Your task to perform on an android device: change your default location settings in chrome Image 0: 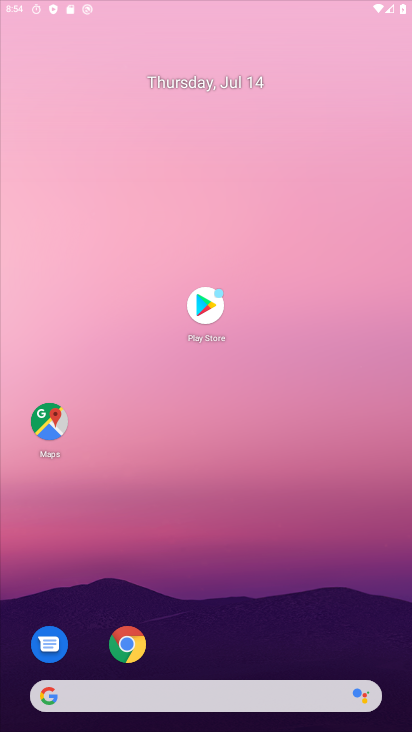
Step 0: drag from (188, 655) to (224, 156)
Your task to perform on an android device: change your default location settings in chrome Image 1: 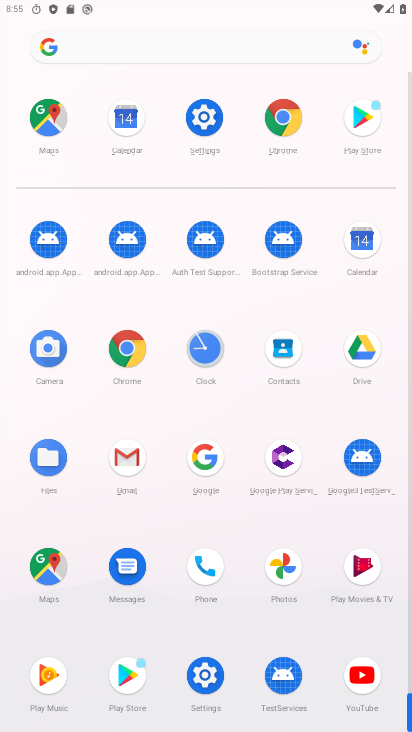
Step 1: click (125, 350)
Your task to perform on an android device: change your default location settings in chrome Image 2: 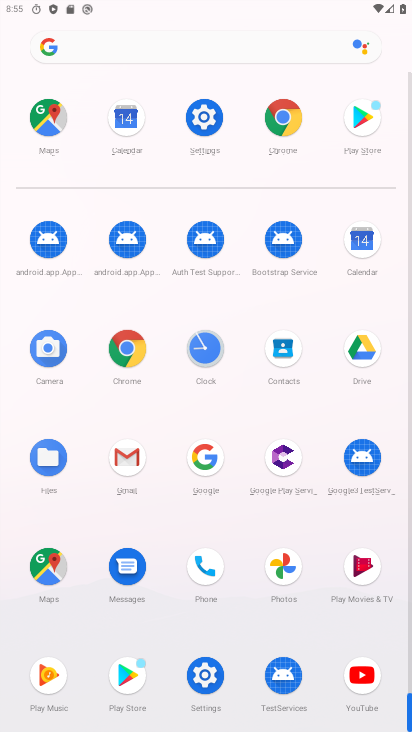
Step 2: click (125, 350)
Your task to perform on an android device: change your default location settings in chrome Image 3: 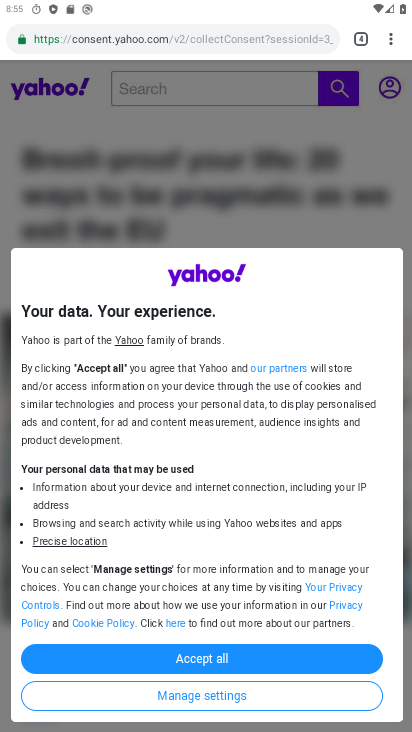
Step 3: drag from (221, 563) to (246, 351)
Your task to perform on an android device: change your default location settings in chrome Image 4: 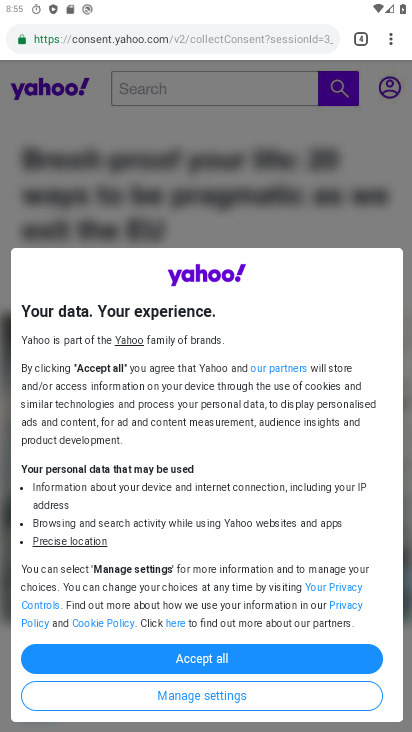
Step 4: click (395, 32)
Your task to perform on an android device: change your default location settings in chrome Image 5: 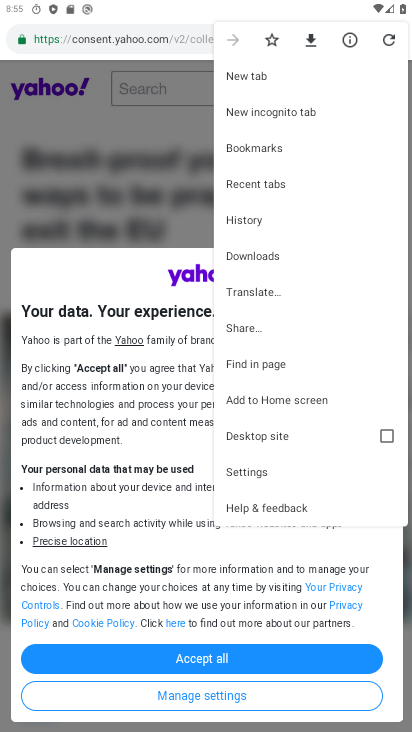
Step 5: click (249, 465)
Your task to perform on an android device: change your default location settings in chrome Image 6: 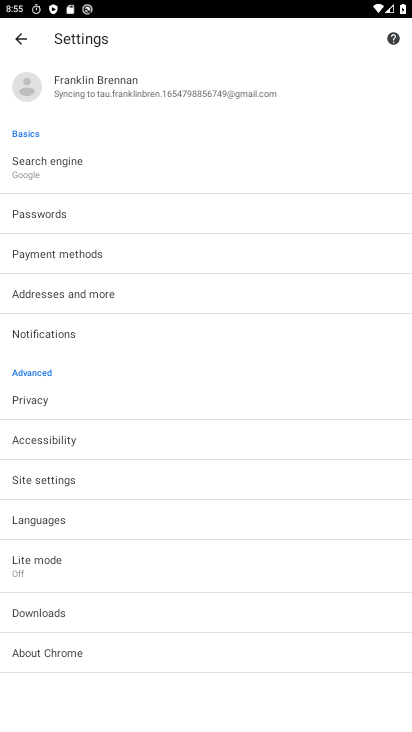
Step 6: drag from (107, 621) to (174, 284)
Your task to perform on an android device: change your default location settings in chrome Image 7: 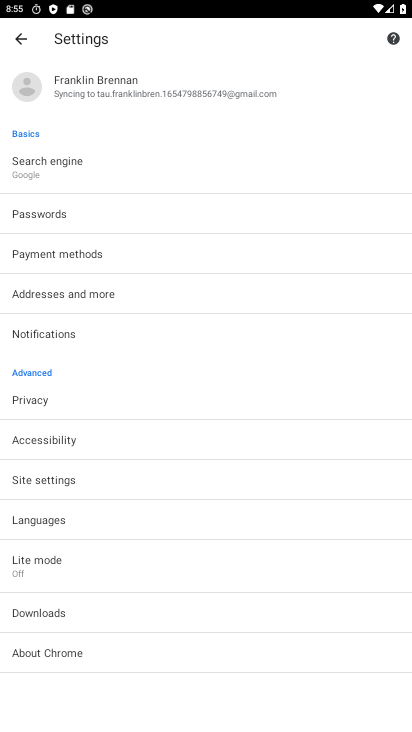
Step 7: click (69, 471)
Your task to perform on an android device: change your default location settings in chrome Image 8: 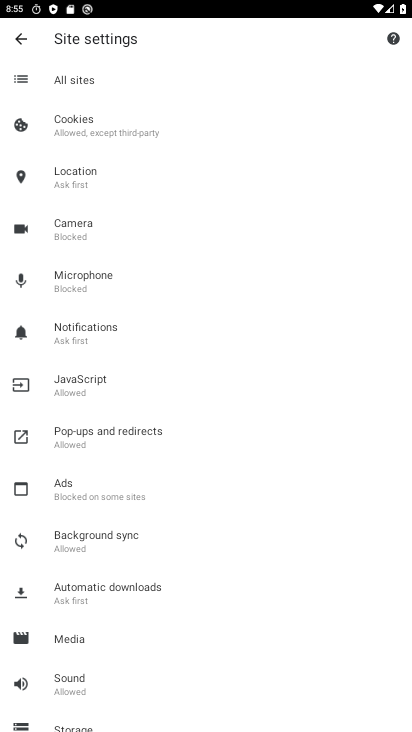
Step 8: drag from (156, 506) to (186, 168)
Your task to perform on an android device: change your default location settings in chrome Image 9: 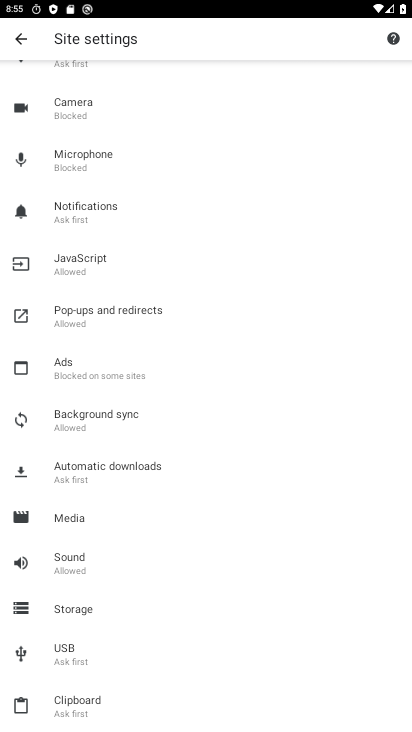
Step 9: drag from (136, 622) to (224, 287)
Your task to perform on an android device: change your default location settings in chrome Image 10: 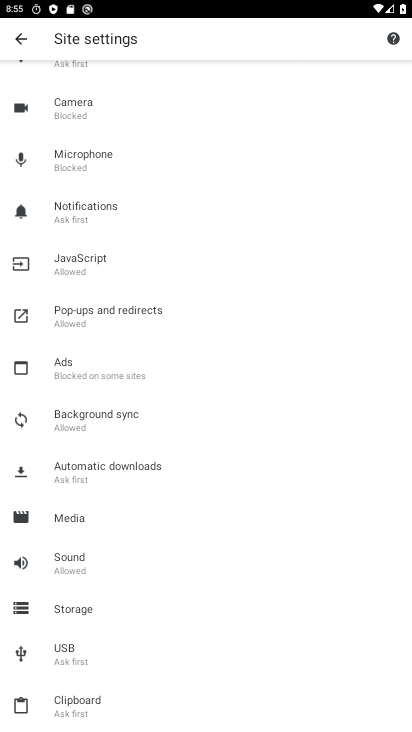
Step 10: drag from (181, 571) to (275, 147)
Your task to perform on an android device: change your default location settings in chrome Image 11: 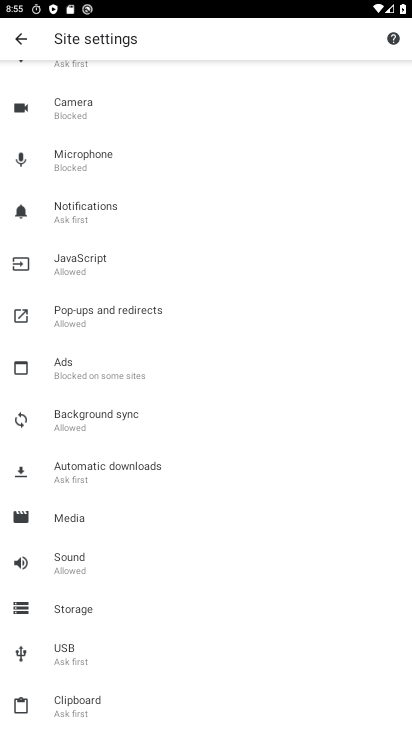
Step 11: drag from (189, 588) to (243, 164)
Your task to perform on an android device: change your default location settings in chrome Image 12: 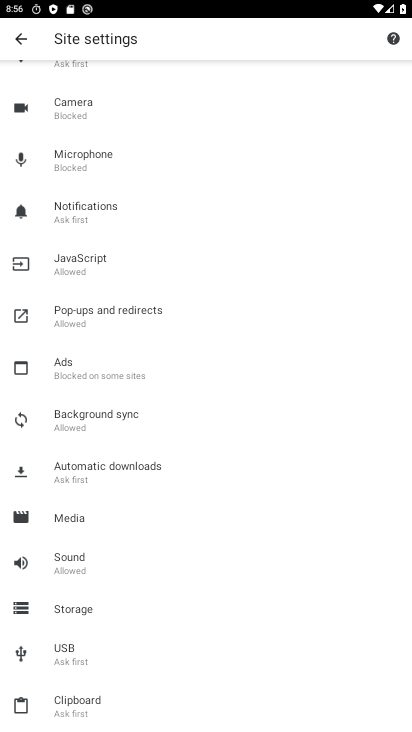
Step 12: drag from (233, 187) to (146, 731)
Your task to perform on an android device: change your default location settings in chrome Image 13: 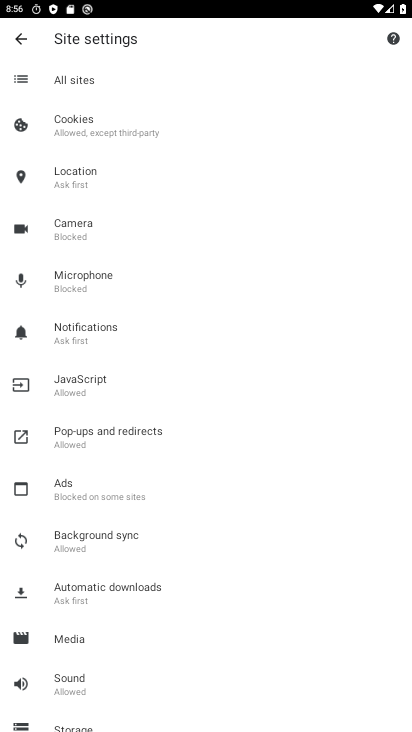
Step 13: drag from (169, 630) to (218, 267)
Your task to perform on an android device: change your default location settings in chrome Image 14: 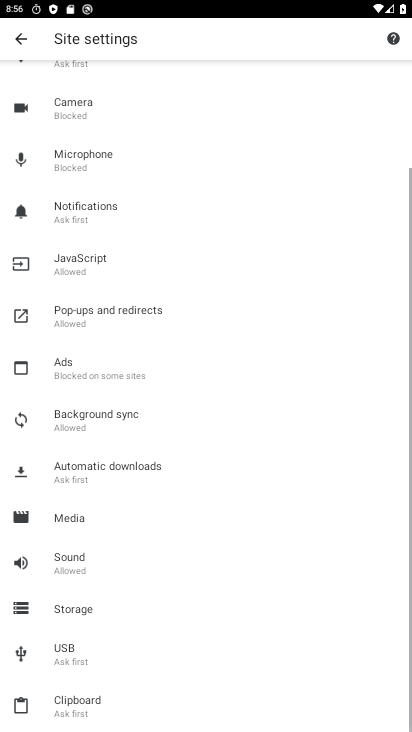
Step 14: drag from (197, 237) to (158, 671)
Your task to perform on an android device: change your default location settings in chrome Image 15: 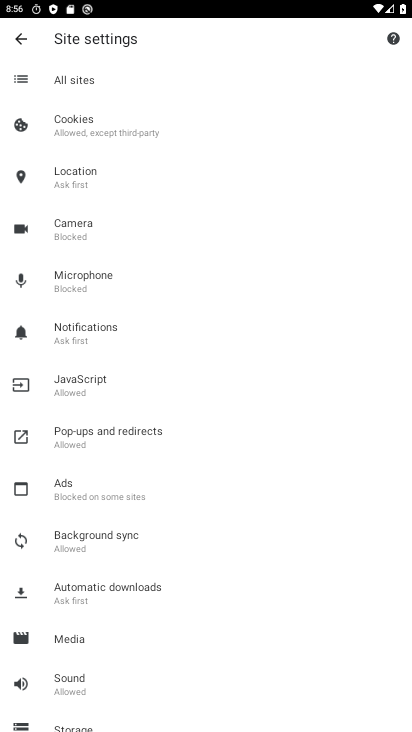
Step 15: drag from (207, 625) to (280, 312)
Your task to perform on an android device: change your default location settings in chrome Image 16: 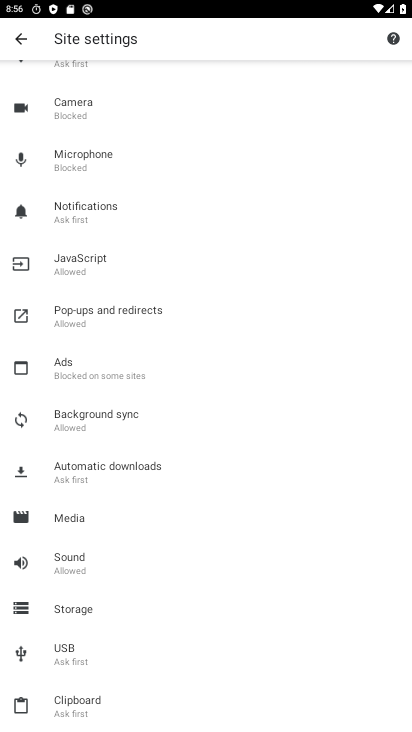
Step 16: drag from (235, 247) to (199, 626)
Your task to perform on an android device: change your default location settings in chrome Image 17: 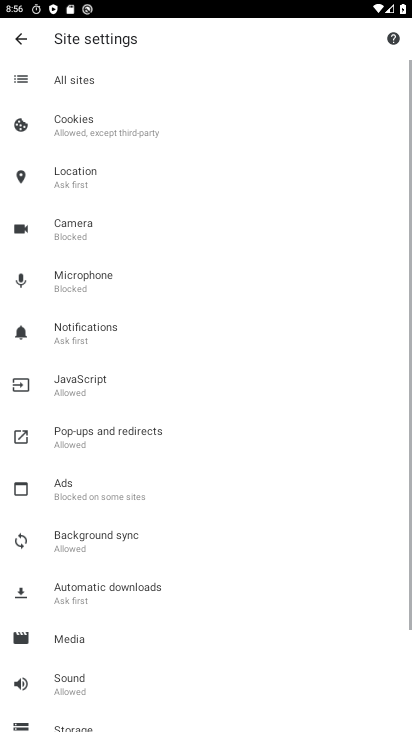
Step 17: click (107, 175)
Your task to perform on an android device: change your default location settings in chrome Image 18: 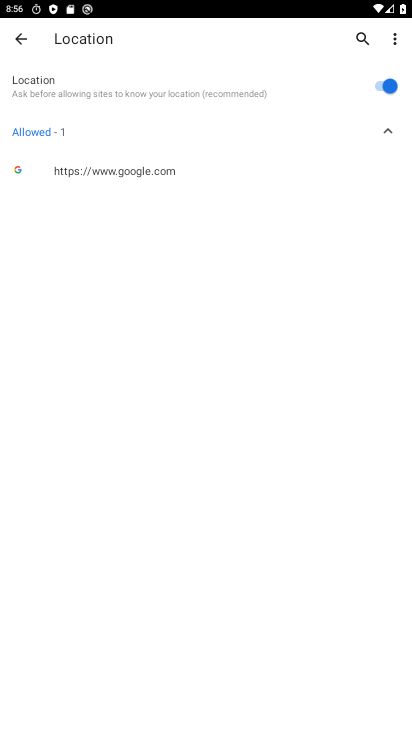
Step 18: click (391, 94)
Your task to perform on an android device: change your default location settings in chrome Image 19: 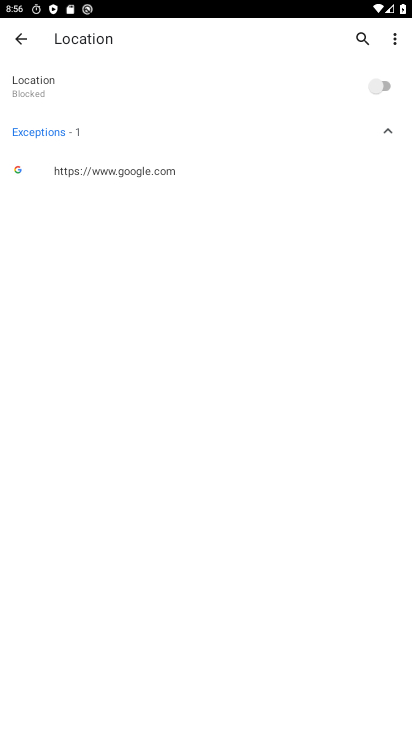
Step 19: task complete